Your task to perform on an android device: turn on priority inbox in the gmail app Image 0: 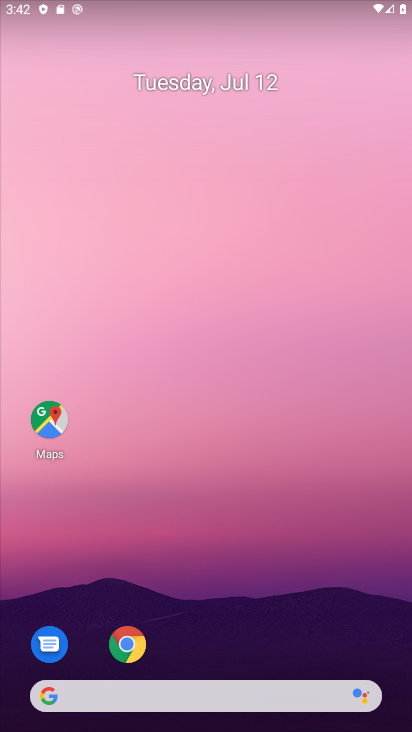
Step 0: drag from (218, 693) to (244, 4)
Your task to perform on an android device: turn on priority inbox in the gmail app Image 1: 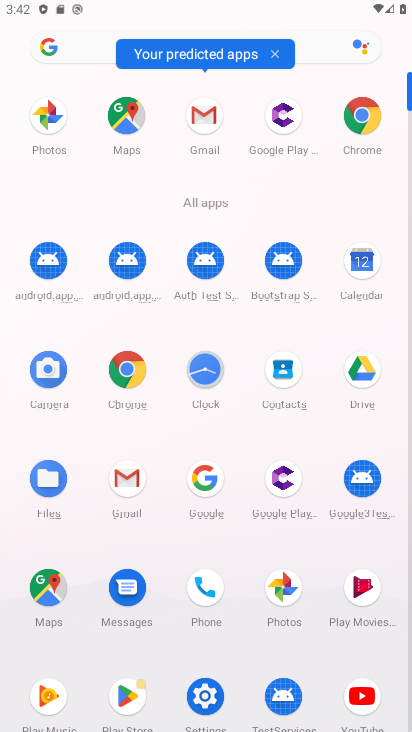
Step 1: click (121, 483)
Your task to perform on an android device: turn on priority inbox in the gmail app Image 2: 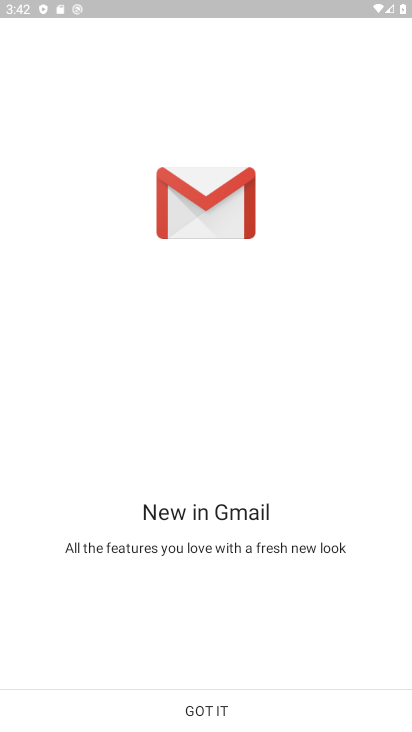
Step 2: click (179, 699)
Your task to perform on an android device: turn on priority inbox in the gmail app Image 3: 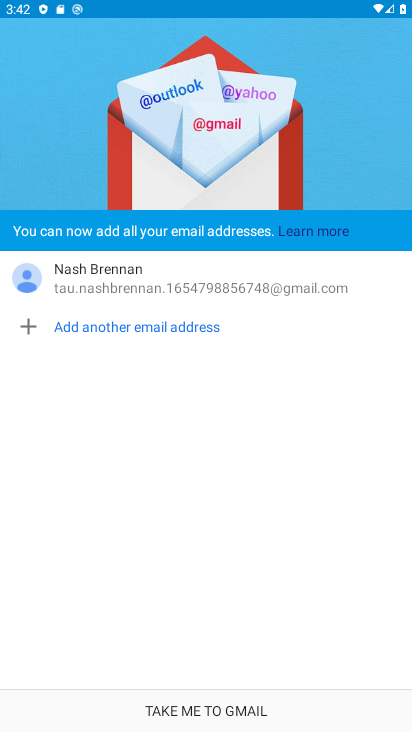
Step 3: click (178, 702)
Your task to perform on an android device: turn on priority inbox in the gmail app Image 4: 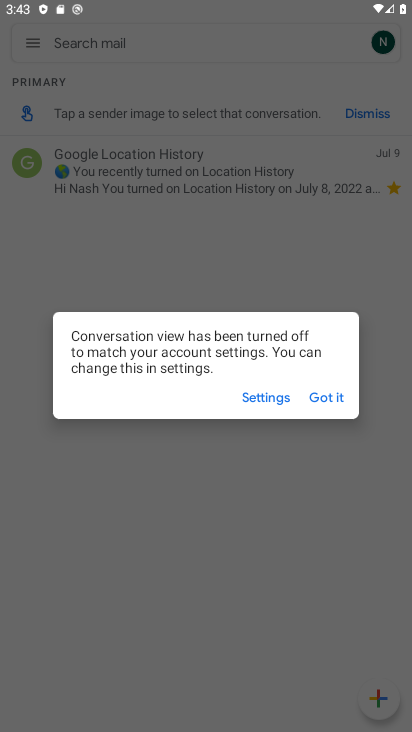
Step 4: click (328, 392)
Your task to perform on an android device: turn on priority inbox in the gmail app Image 5: 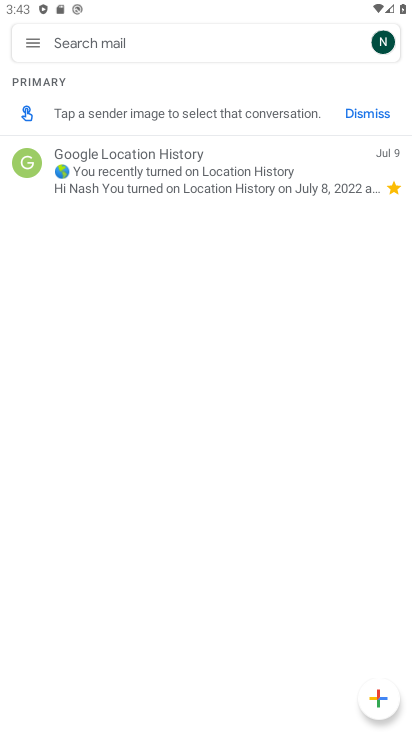
Step 5: click (37, 47)
Your task to perform on an android device: turn on priority inbox in the gmail app Image 6: 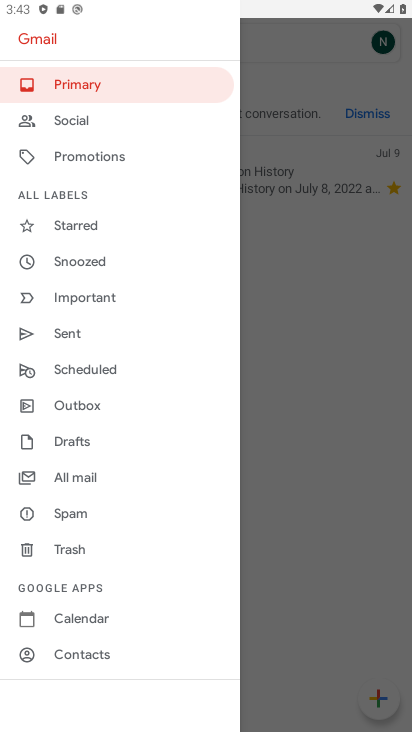
Step 6: drag from (126, 608) to (100, 132)
Your task to perform on an android device: turn on priority inbox in the gmail app Image 7: 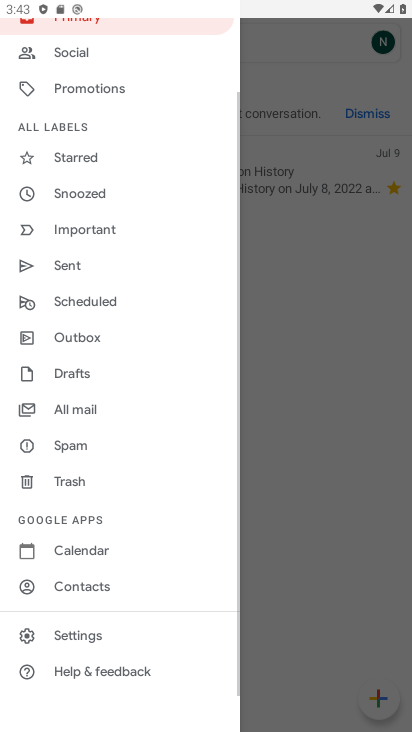
Step 7: click (60, 632)
Your task to perform on an android device: turn on priority inbox in the gmail app Image 8: 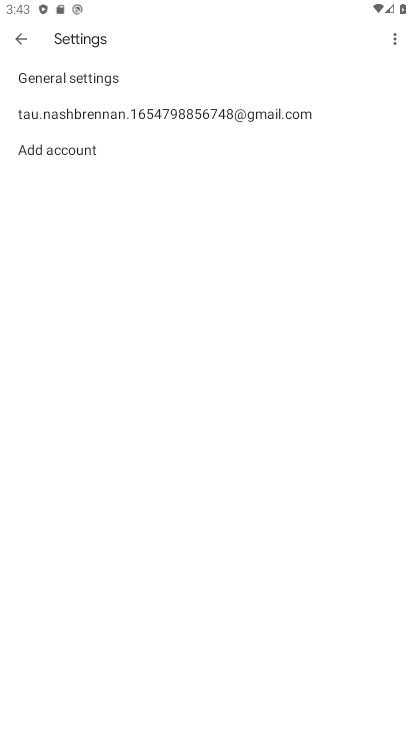
Step 8: click (100, 108)
Your task to perform on an android device: turn on priority inbox in the gmail app Image 9: 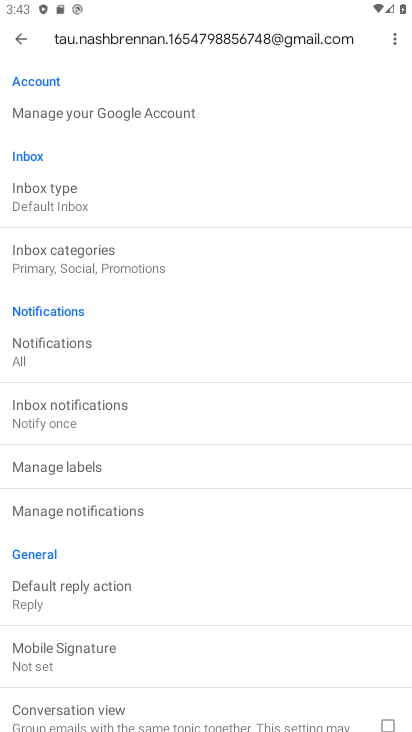
Step 9: click (52, 203)
Your task to perform on an android device: turn on priority inbox in the gmail app Image 10: 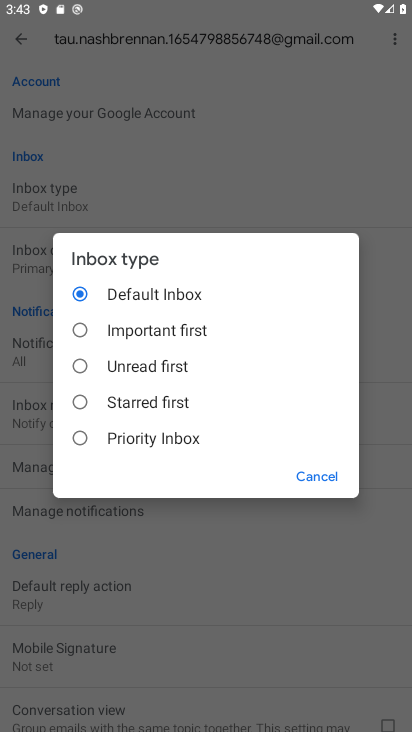
Step 10: click (146, 433)
Your task to perform on an android device: turn on priority inbox in the gmail app Image 11: 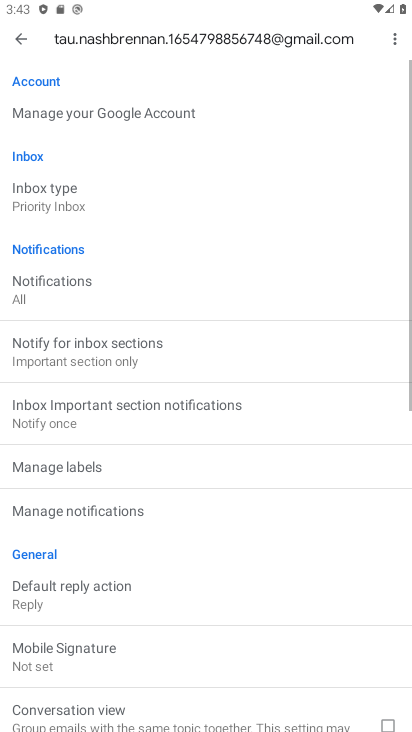
Step 11: task complete